Your task to perform on an android device: Go to Wikipedia Image 0: 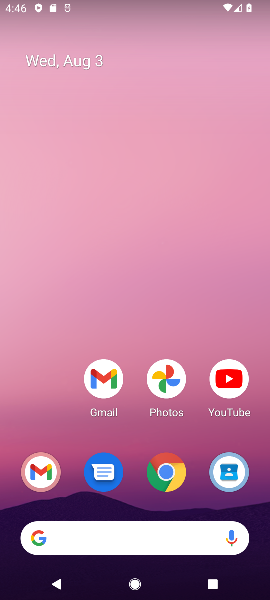
Step 0: drag from (48, 373) to (88, 70)
Your task to perform on an android device: Go to Wikipedia Image 1: 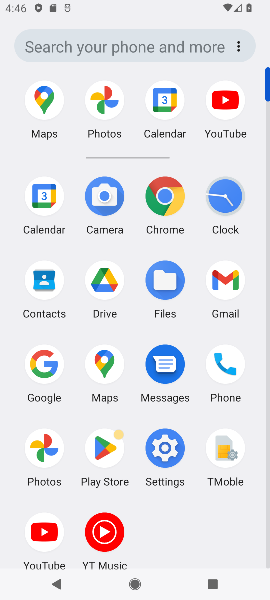
Step 1: click (163, 189)
Your task to perform on an android device: Go to Wikipedia Image 2: 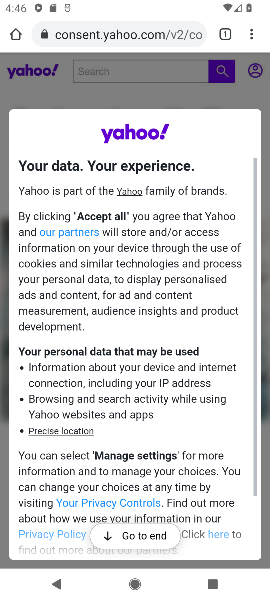
Step 2: click (126, 33)
Your task to perform on an android device: Go to Wikipedia Image 3: 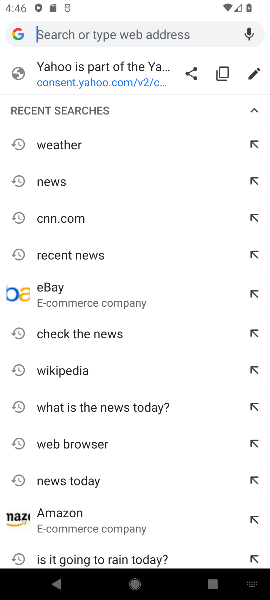
Step 3: type "wikipedia"
Your task to perform on an android device: Go to Wikipedia Image 4: 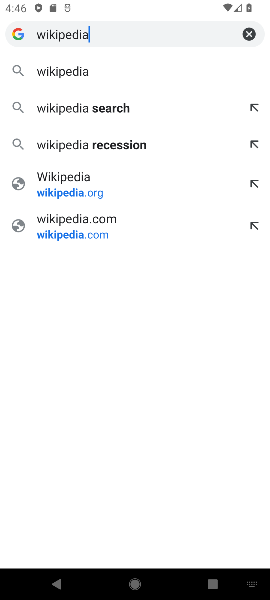
Step 4: click (75, 67)
Your task to perform on an android device: Go to Wikipedia Image 5: 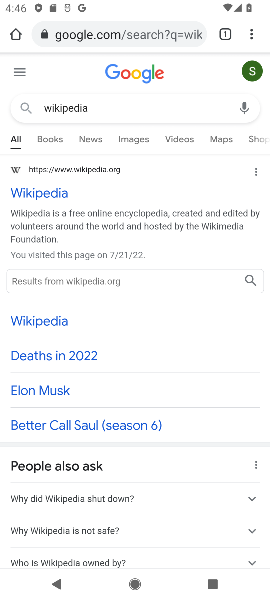
Step 5: click (27, 187)
Your task to perform on an android device: Go to Wikipedia Image 6: 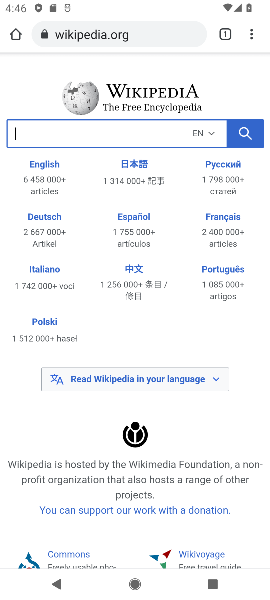
Step 6: task complete